Your task to perform on an android device: Open battery settings Image 0: 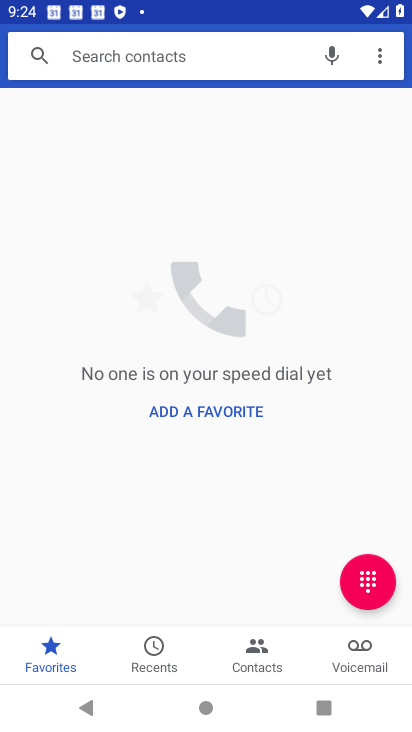
Step 0: press home button
Your task to perform on an android device: Open battery settings Image 1: 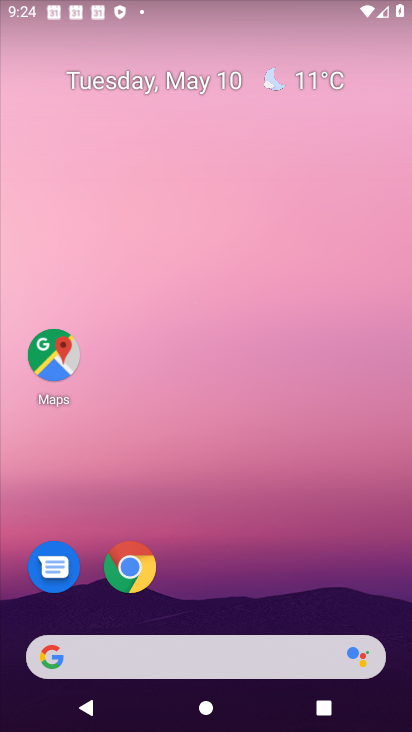
Step 1: drag from (172, 571) to (184, 244)
Your task to perform on an android device: Open battery settings Image 2: 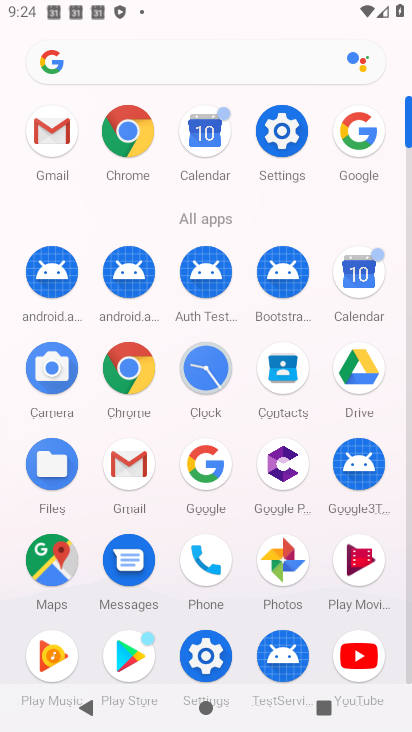
Step 2: click (280, 134)
Your task to perform on an android device: Open battery settings Image 3: 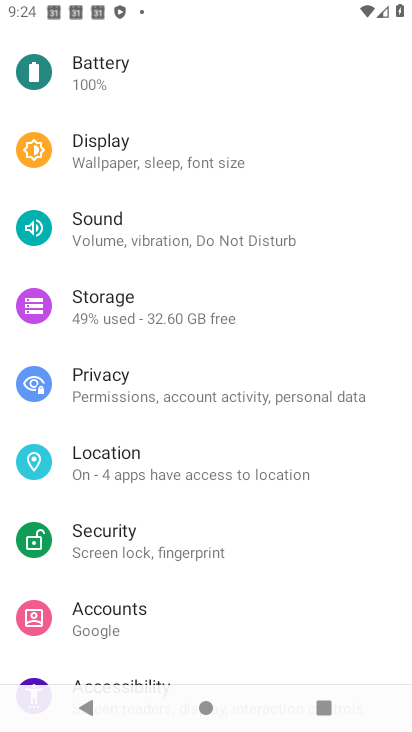
Step 3: click (138, 73)
Your task to perform on an android device: Open battery settings Image 4: 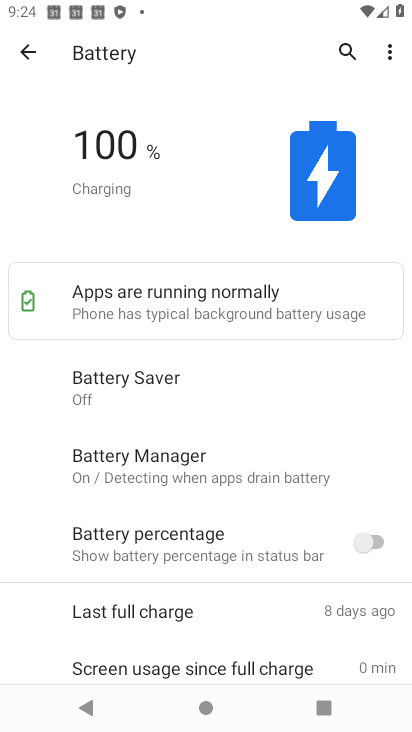
Step 4: task complete